Your task to perform on an android device: Play the last video I watched on Youtube Image 0: 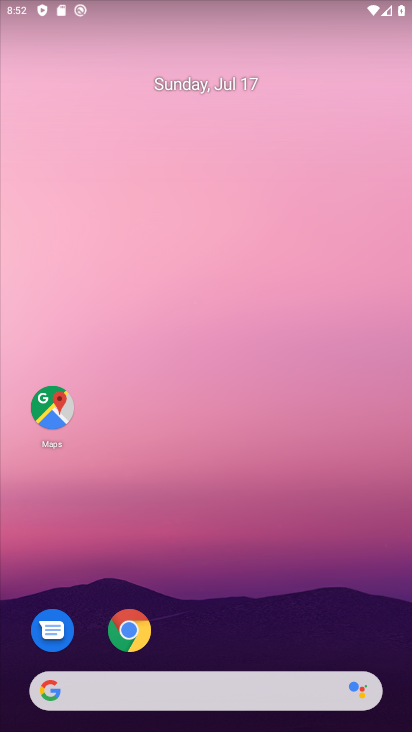
Step 0: drag from (197, 637) to (299, 59)
Your task to perform on an android device: Play the last video I watched on Youtube Image 1: 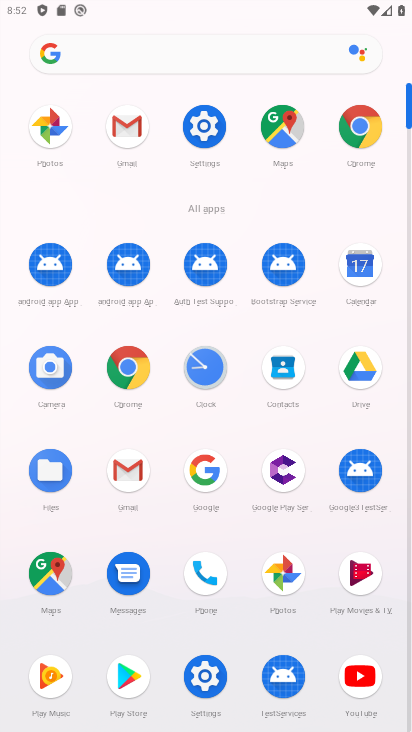
Step 1: click (346, 675)
Your task to perform on an android device: Play the last video I watched on Youtube Image 2: 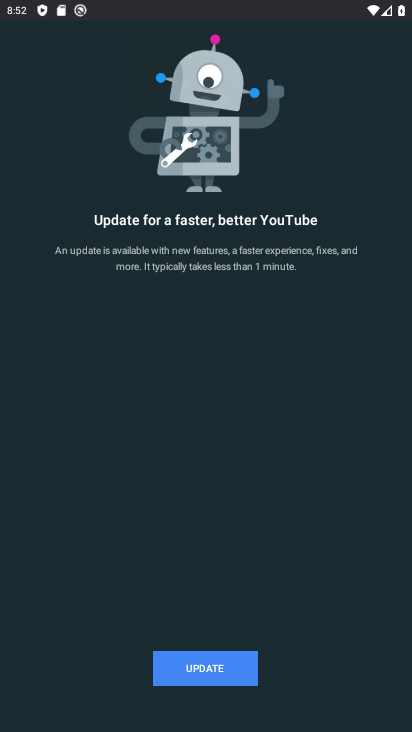
Step 2: click (196, 653)
Your task to perform on an android device: Play the last video I watched on Youtube Image 3: 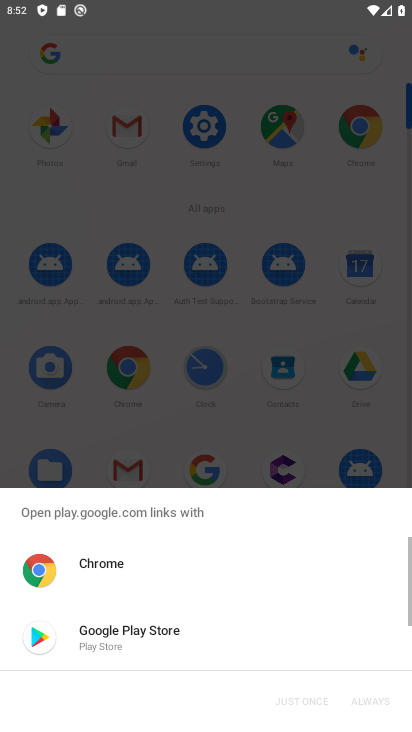
Step 3: click (242, 653)
Your task to perform on an android device: Play the last video I watched on Youtube Image 4: 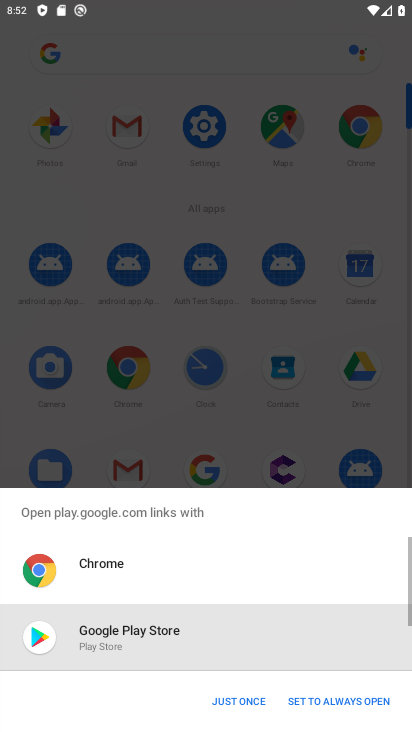
Step 4: click (269, 704)
Your task to perform on an android device: Play the last video I watched on Youtube Image 5: 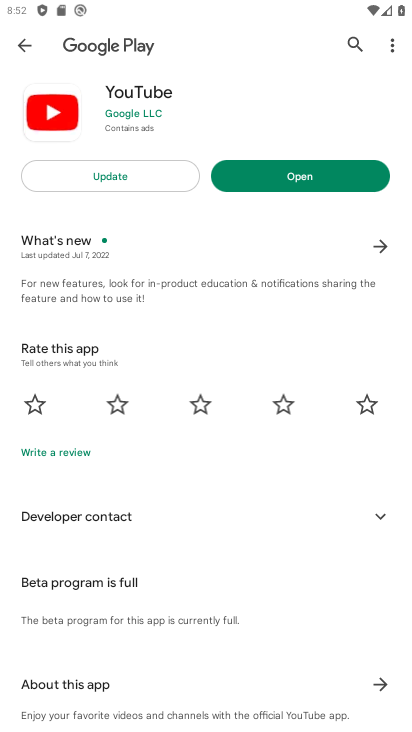
Step 5: click (155, 175)
Your task to perform on an android device: Play the last video I watched on Youtube Image 6: 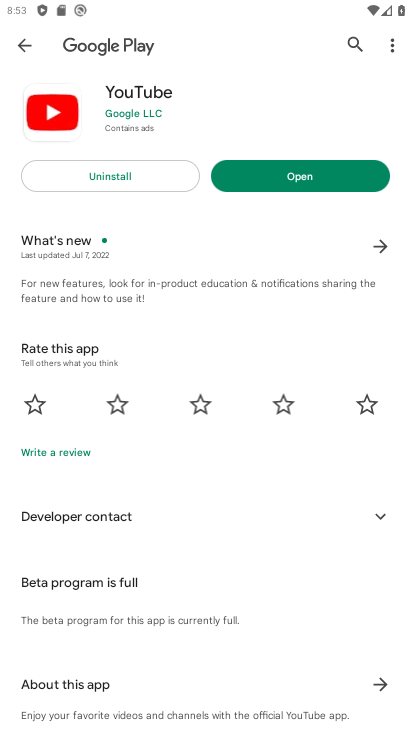
Step 6: click (298, 182)
Your task to perform on an android device: Play the last video I watched on Youtube Image 7: 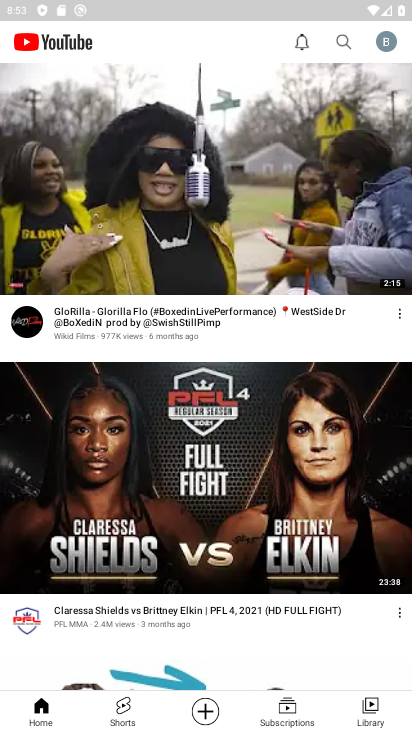
Step 7: click (380, 711)
Your task to perform on an android device: Play the last video I watched on Youtube Image 8: 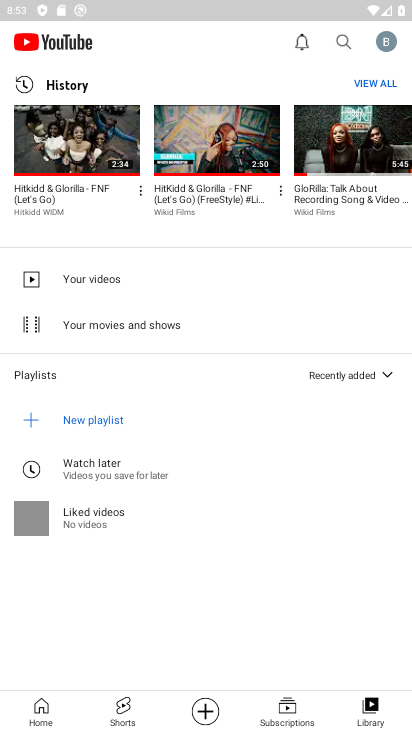
Step 8: click (100, 173)
Your task to perform on an android device: Play the last video I watched on Youtube Image 9: 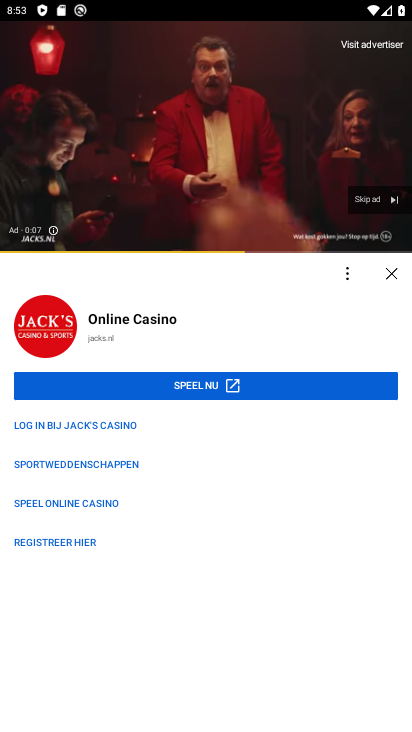
Step 9: click (392, 196)
Your task to perform on an android device: Play the last video I watched on Youtube Image 10: 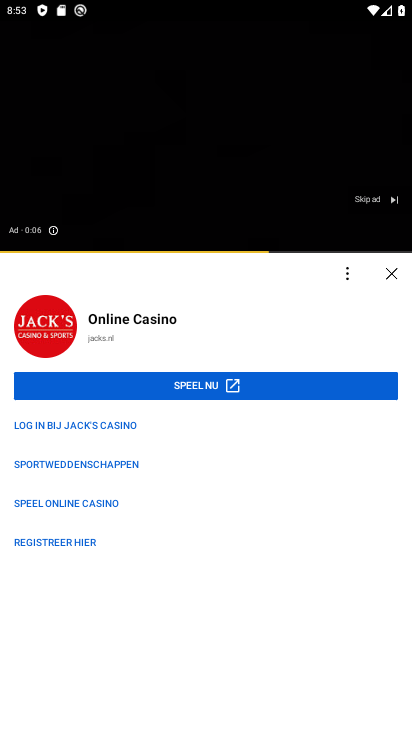
Step 10: click (394, 211)
Your task to perform on an android device: Play the last video I watched on Youtube Image 11: 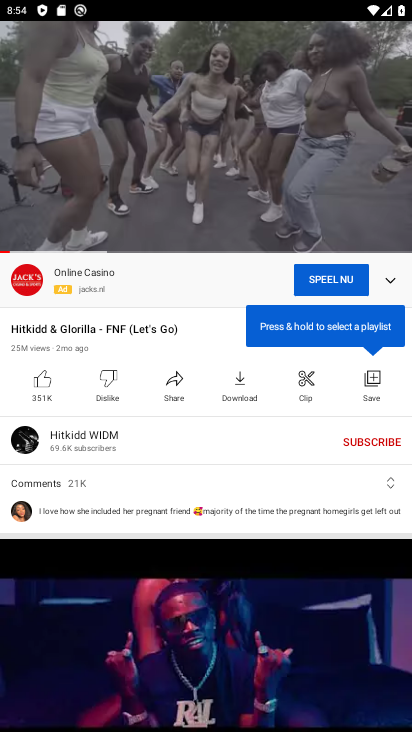
Step 11: task complete